Your task to perform on an android device: Install the Lyft app Image 0: 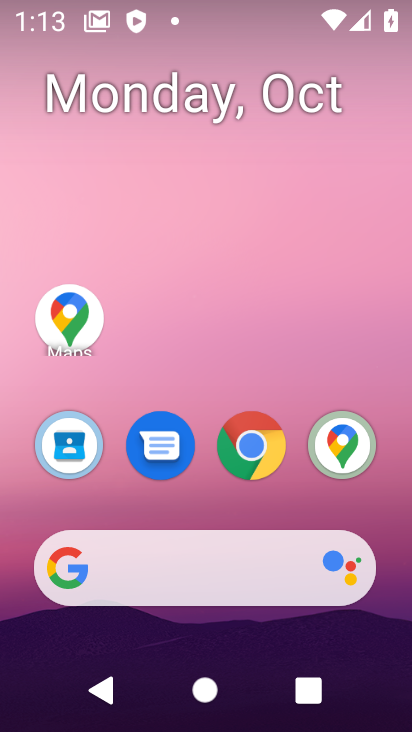
Step 0: drag from (202, 497) to (202, 105)
Your task to perform on an android device: Install the Lyft app Image 1: 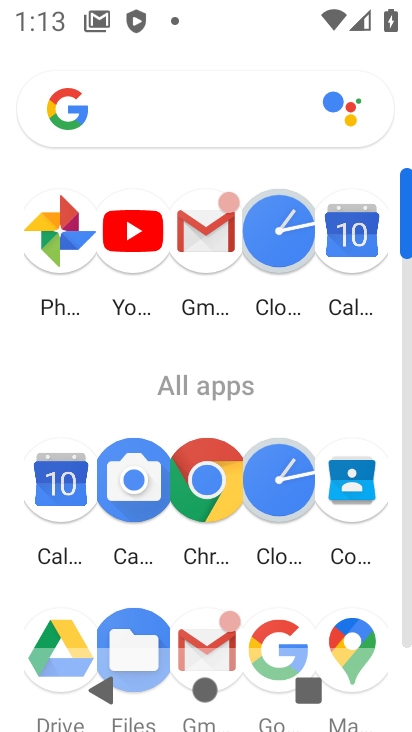
Step 1: drag from (239, 408) to (242, 170)
Your task to perform on an android device: Install the Lyft app Image 2: 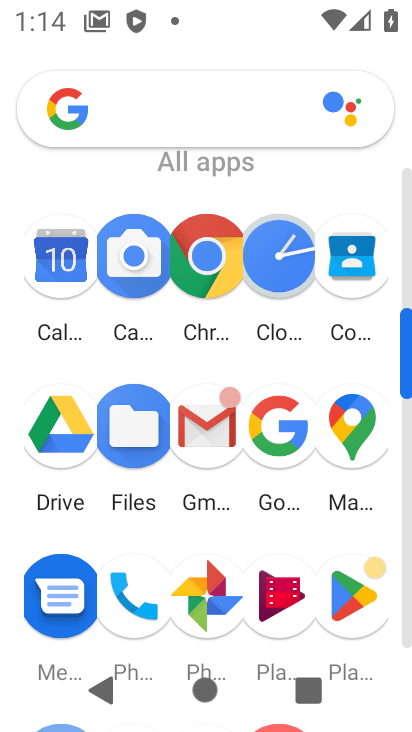
Step 2: click (336, 607)
Your task to perform on an android device: Install the Lyft app Image 3: 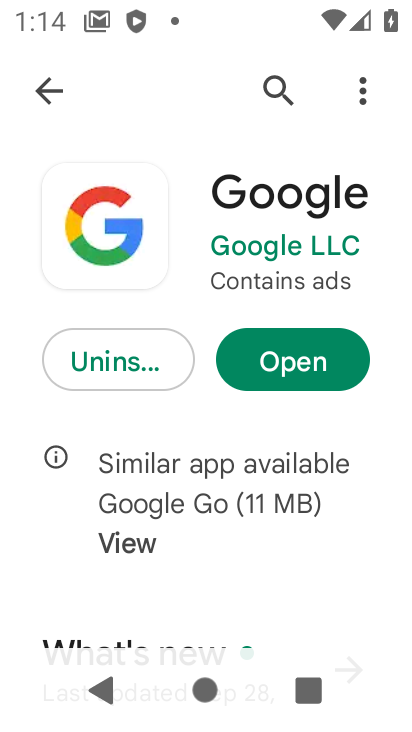
Step 3: click (283, 90)
Your task to perform on an android device: Install the Lyft app Image 4: 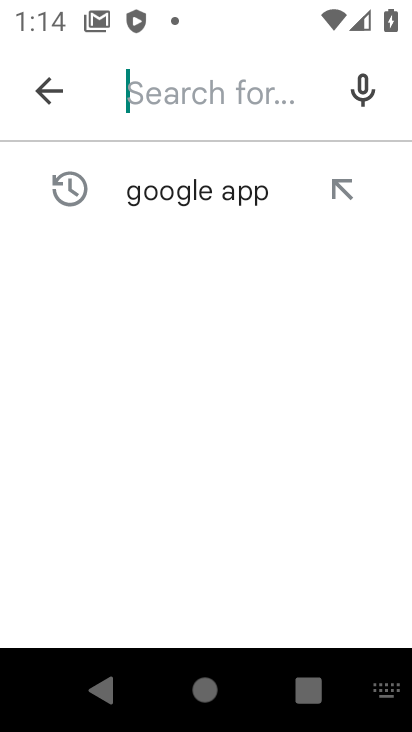
Step 4: type "Lyft app"
Your task to perform on an android device: Install the Lyft app Image 5: 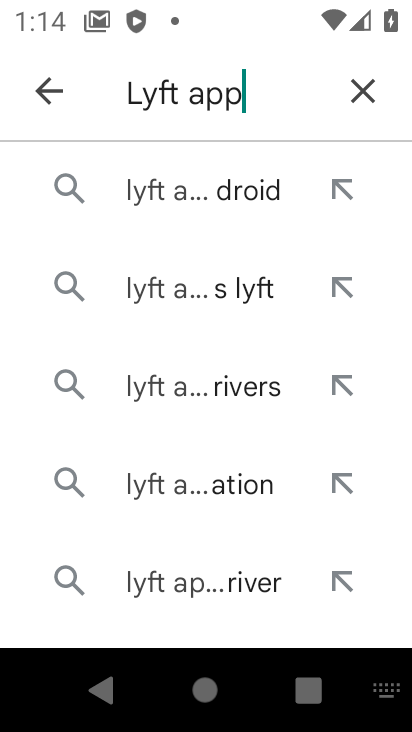
Step 5: type ""
Your task to perform on an android device: Install the Lyft app Image 6: 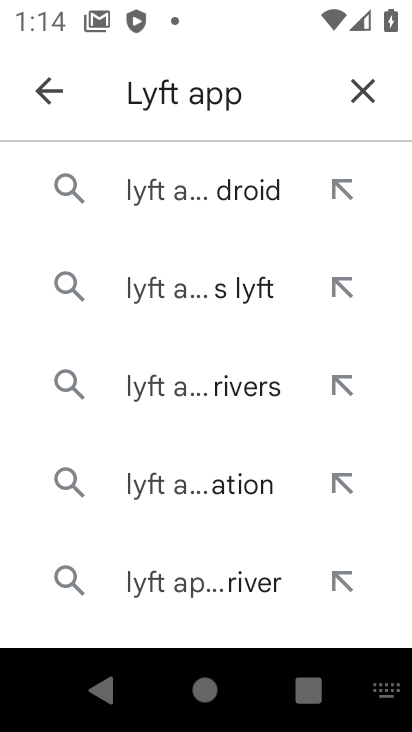
Step 6: click (191, 199)
Your task to perform on an android device: Install the Lyft app Image 7: 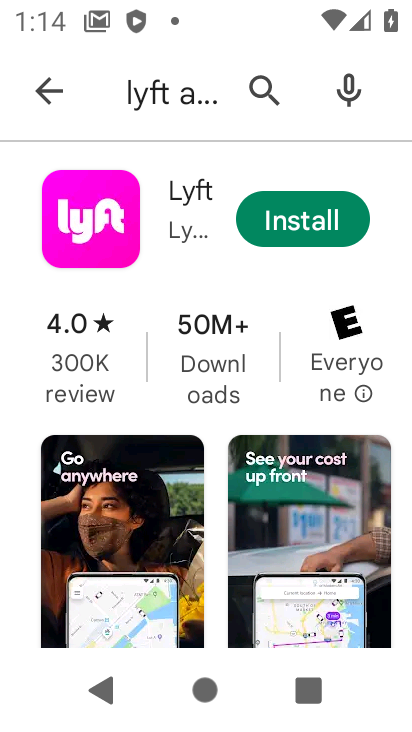
Step 7: click (293, 222)
Your task to perform on an android device: Install the Lyft app Image 8: 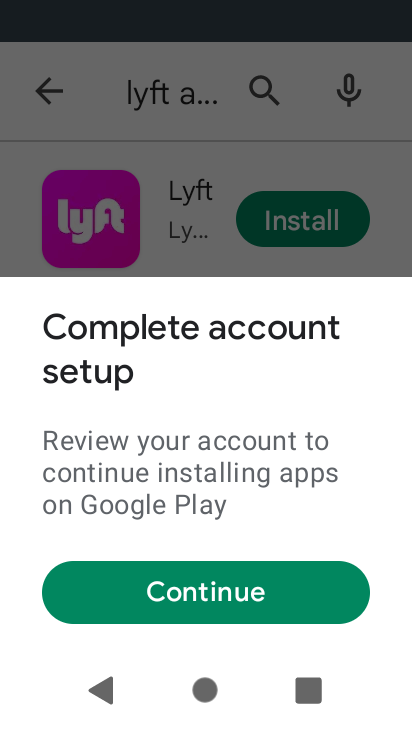
Step 8: click (300, 599)
Your task to perform on an android device: Install the Lyft app Image 9: 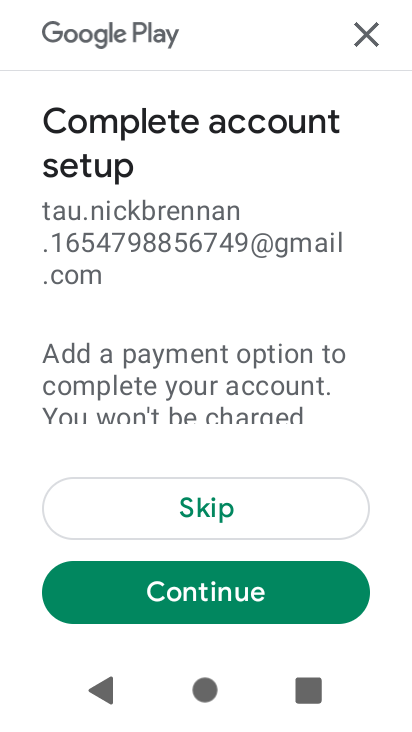
Step 9: click (243, 515)
Your task to perform on an android device: Install the Lyft app Image 10: 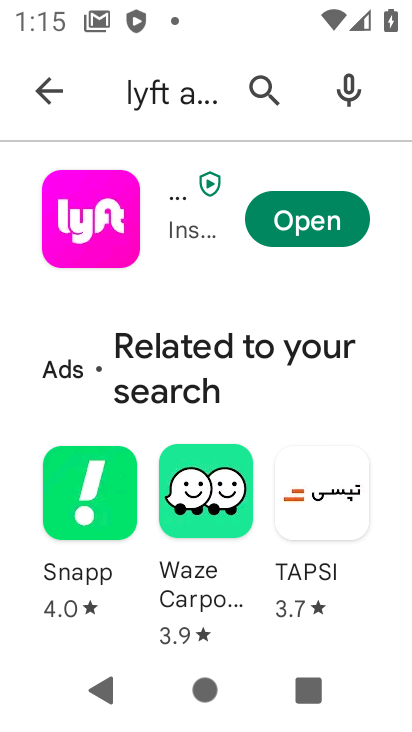
Step 10: task complete